Your task to perform on an android device: When is my next meeting? Image 0: 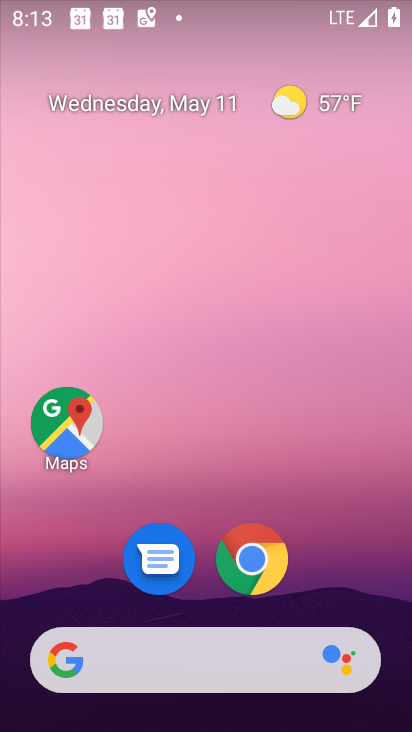
Step 0: press home button
Your task to perform on an android device: When is my next meeting? Image 1: 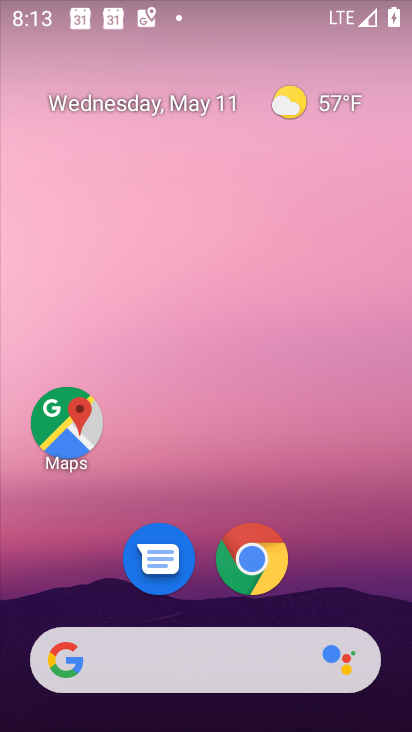
Step 1: drag from (368, 562) to (334, 40)
Your task to perform on an android device: When is my next meeting? Image 2: 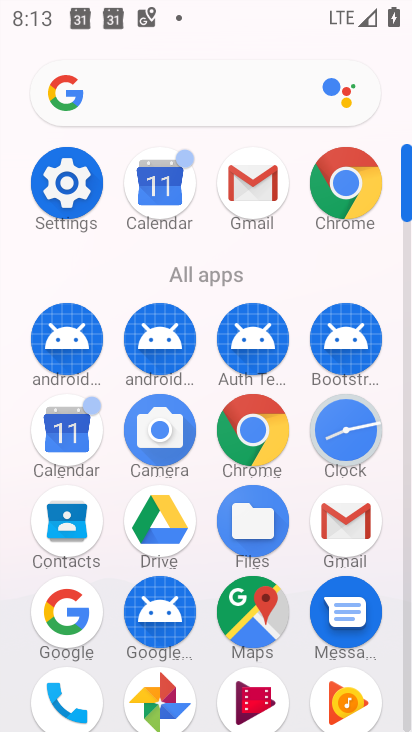
Step 2: click (65, 437)
Your task to perform on an android device: When is my next meeting? Image 3: 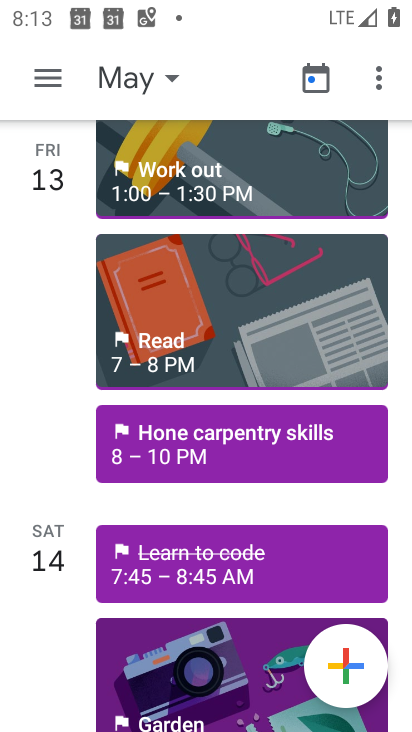
Step 3: task complete